Your task to perform on an android device: turn notification dots off Image 0: 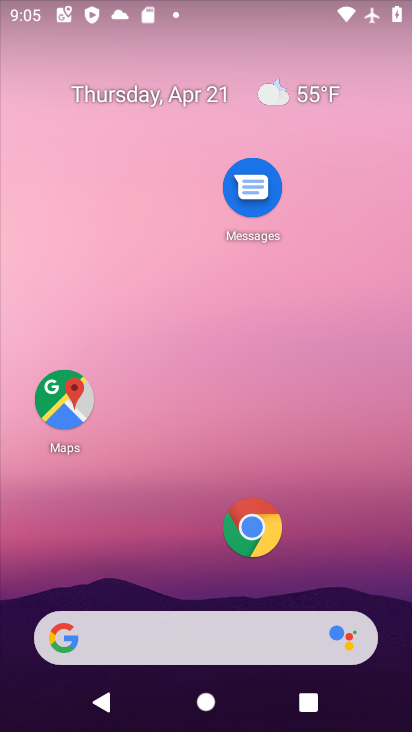
Step 0: drag from (221, 601) to (399, 97)
Your task to perform on an android device: turn notification dots off Image 1: 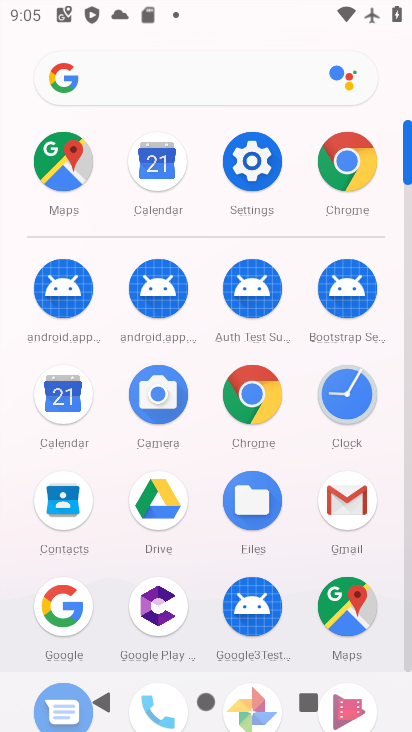
Step 1: click (256, 159)
Your task to perform on an android device: turn notification dots off Image 2: 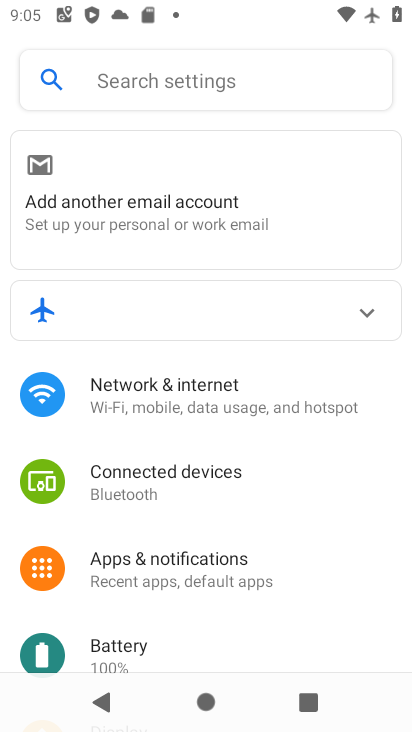
Step 2: click (206, 560)
Your task to perform on an android device: turn notification dots off Image 3: 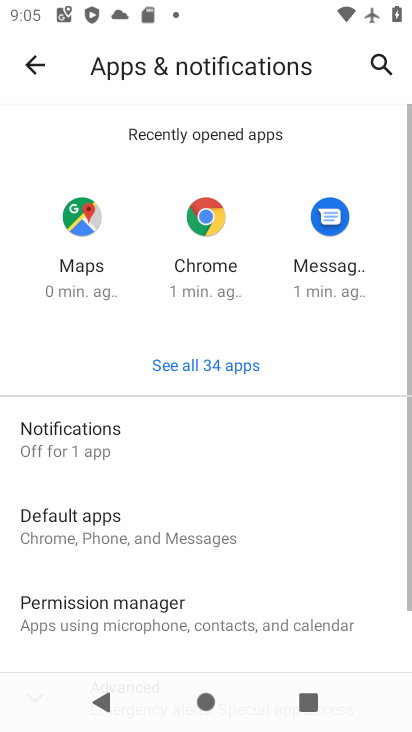
Step 3: click (95, 438)
Your task to perform on an android device: turn notification dots off Image 4: 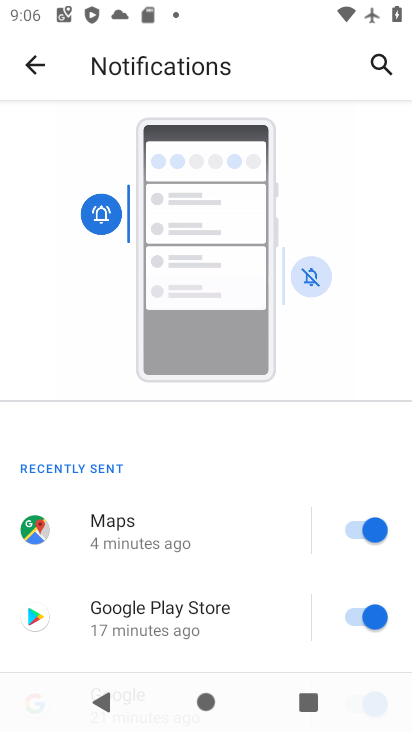
Step 4: drag from (186, 593) to (286, 316)
Your task to perform on an android device: turn notification dots off Image 5: 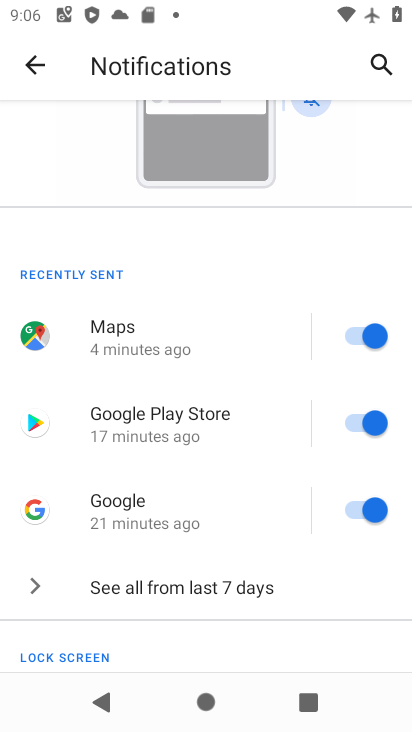
Step 5: drag from (144, 554) to (312, 93)
Your task to perform on an android device: turn notification dots off Image 6: 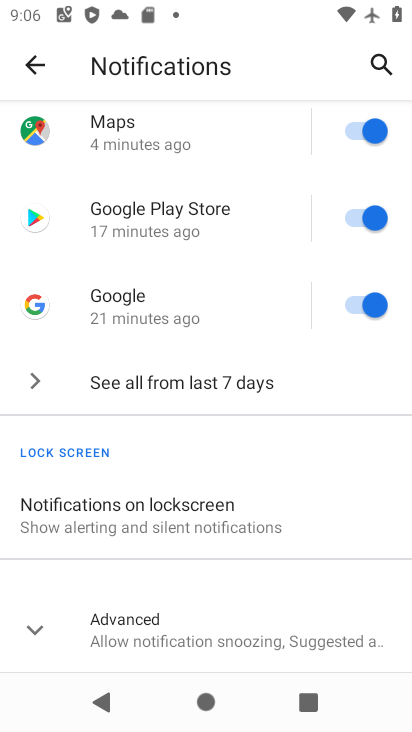
Step 6: click (101, 621)
Your task to perform on an android device: turn notification dots off Image 7: 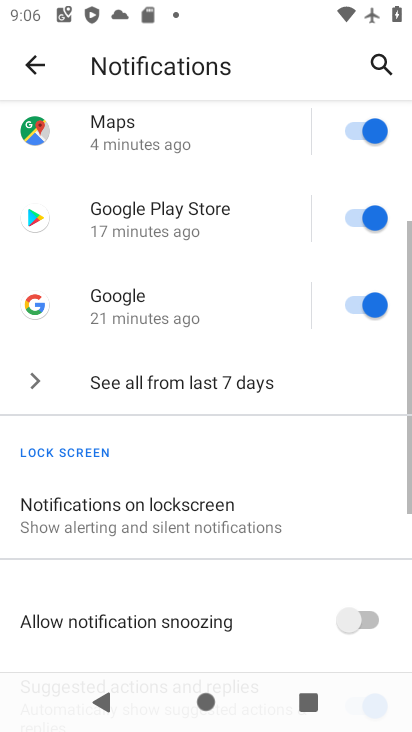
Step 7: task complete